Your task to perform on an android device: change notification settings in the gmail app Image 0: 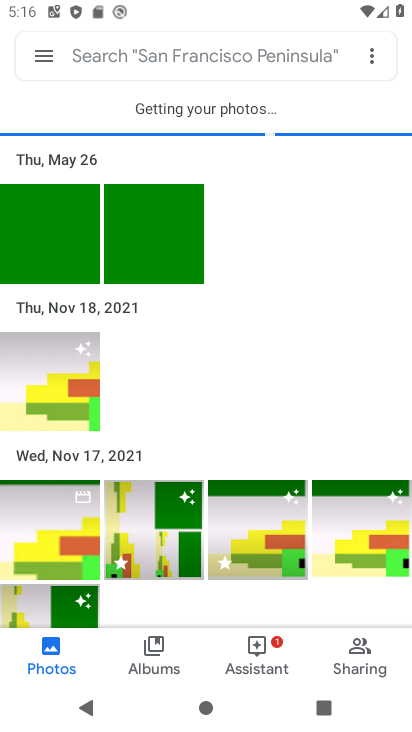
Step 0: press back button
Your task to perform on an android device: change notification settings in the gmail app Image 1: 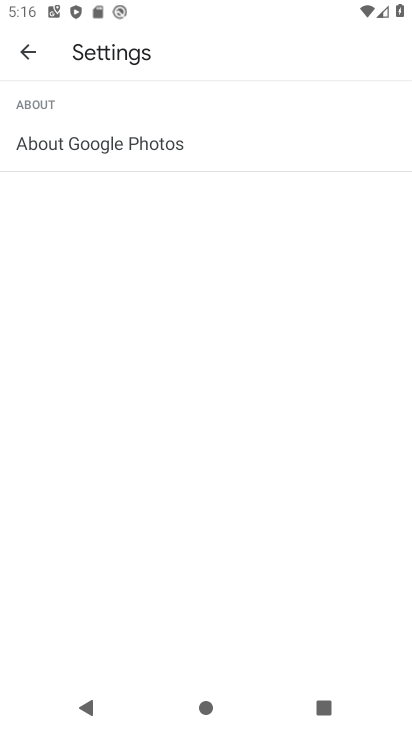
Step 1: press home button
Your task to perform on an android device: change notification settings in the gmail app Image 2: 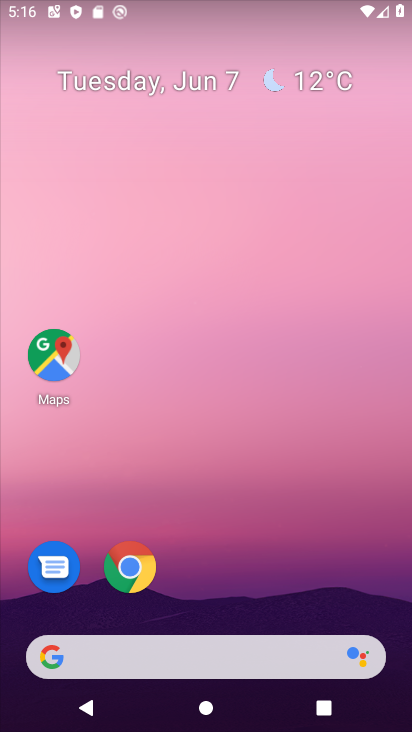
Step 2: drag from (244, 561) to (178, 51)
Your task to perform on an android device: change notification settings in the gmail app Image 3: 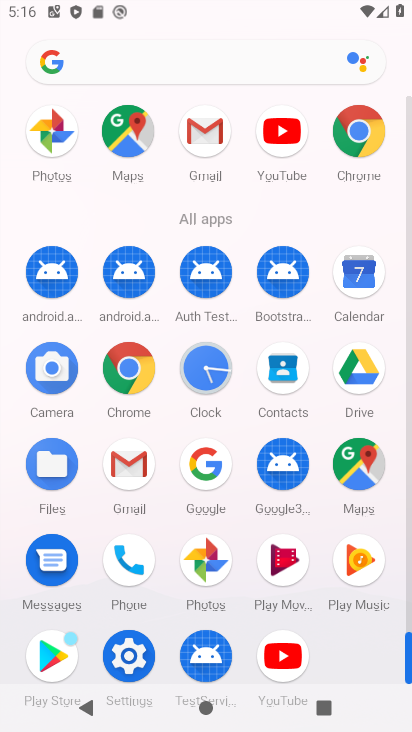
Step 3: click (131, 461)
Your task to perform on an android device: change notification settings in the gmail app Image 4: 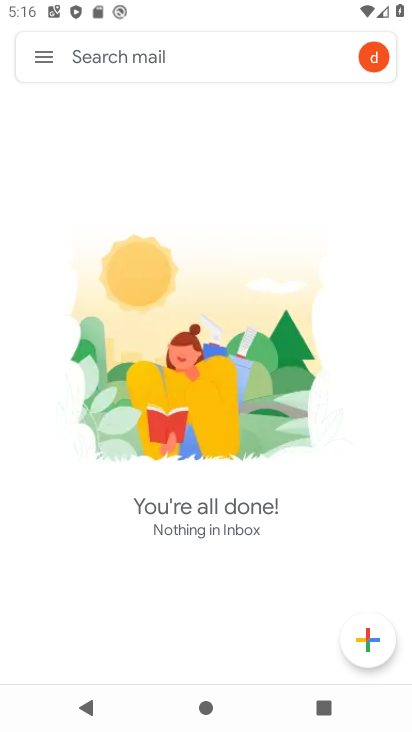
Step 4: click (41, 57)
Your task to perform on an android device: change notification settings in the gmail app Image 5: 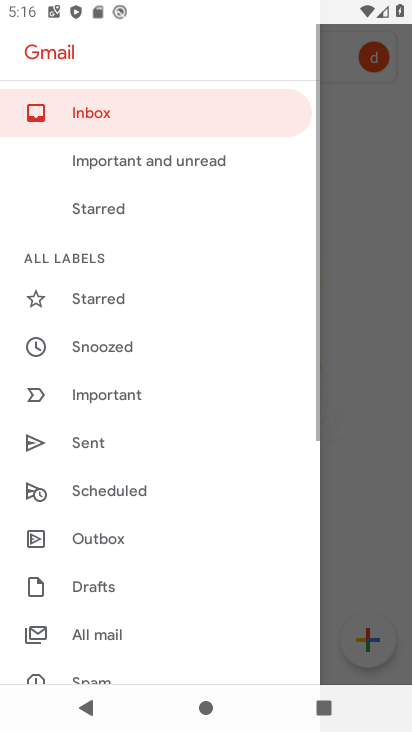
Step 5: drag from (202, 587) to (164, 132)
Your task to perform on an android device: change notification settings in the gmail app Image 6: 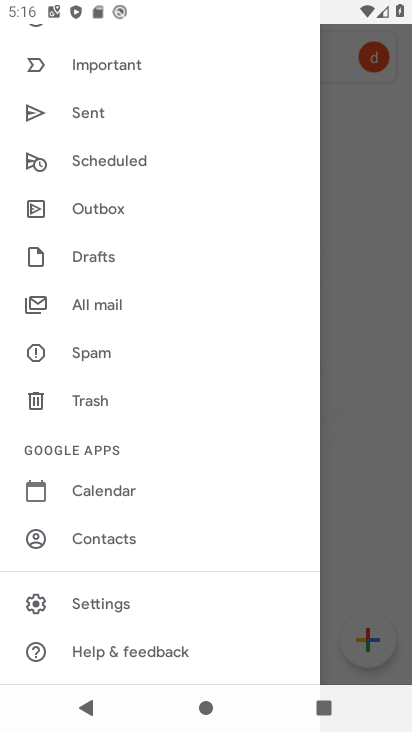
Step 6: click (103, 596)
Your task to perform on an android device: change notification settings in the gmail app Image 7: 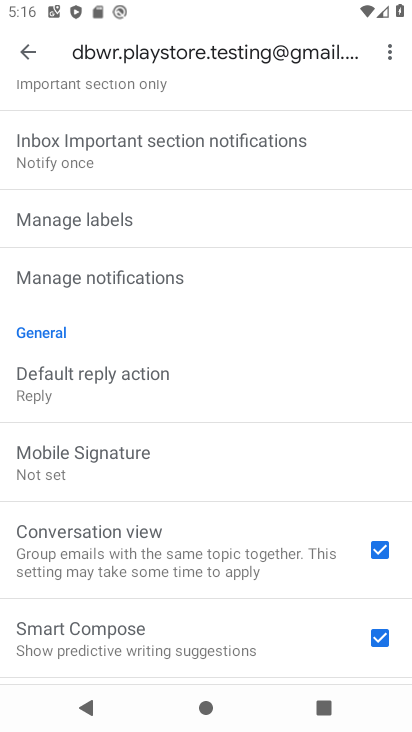
Step 7: click (144, 272)
Your task to perform on an android device: change notification settings in the gmail app Image 8: 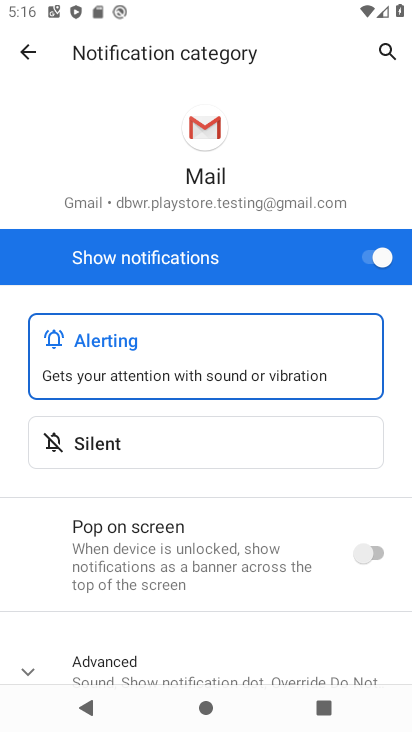
Step 8: click (365, 248)
Your task to perform on an android device: change notification settings in the gmail app Image 9: 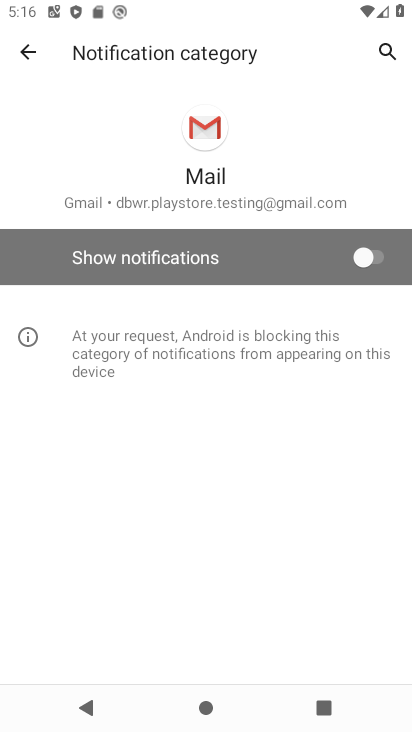
Step 9: task complete